Your task to perform on an android device: star an email in the gmail app Image 0: 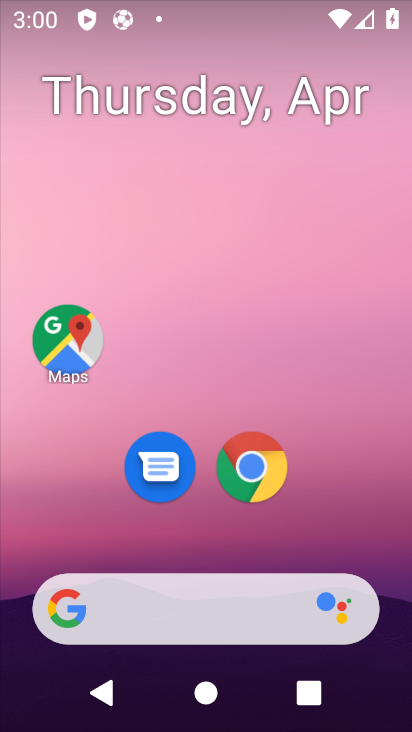
Step 0: drag from (345, 520) to (379, 113)
Your task to perform on an android device: star an email in the gmail app Image 1: 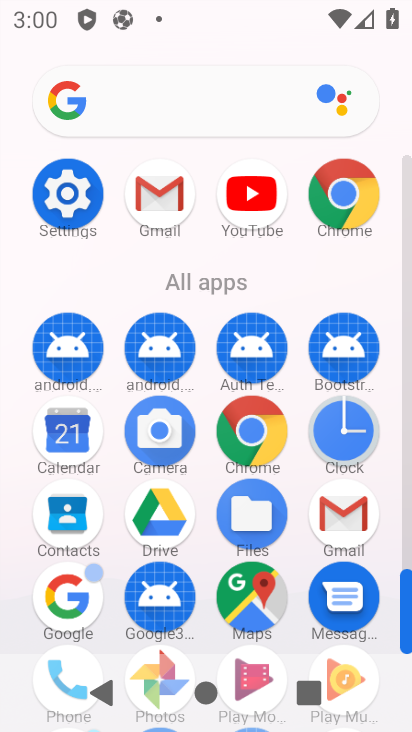
Step 1: click (159, 206)
Your task to perform on an android device: star an email in the gmail app Image 2: 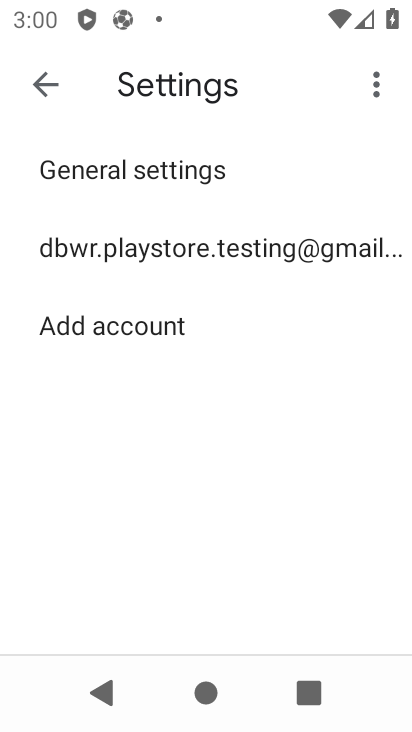
Step 2: click (43, 78)
Your task to perform on an android device: star an email in the gmail app Image 3: 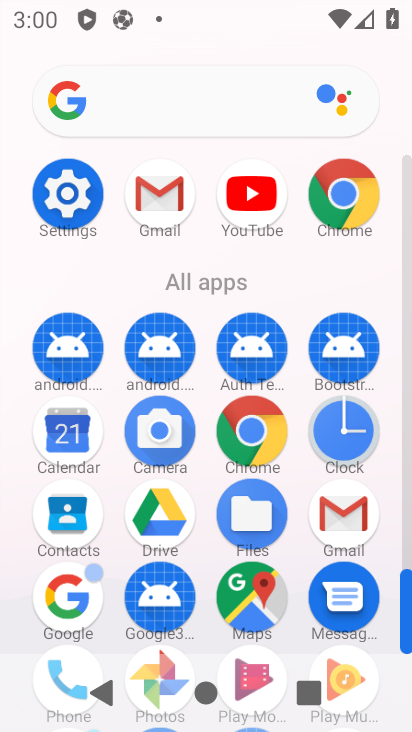
Step 3: click (150, 189)
Your task to perform on an android device: star an email in the gmail app Image 4: 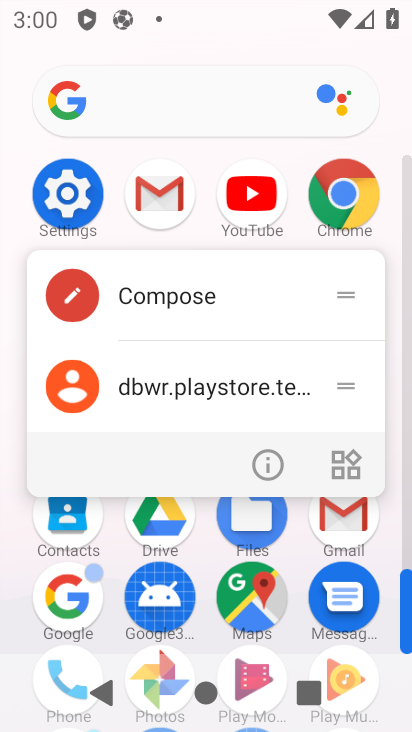
Step 4: click (150, 189)
Your task to perform on an android device: star an email in the gmail app Image 5: 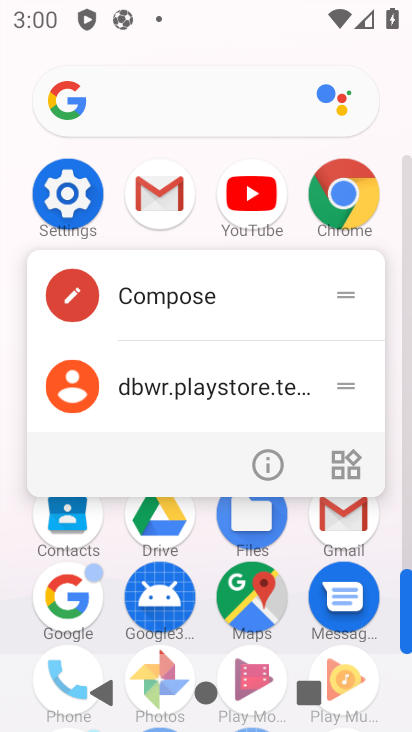
Step 5: click (150, 189)
Your task to perform on an android device: star an email in the gmail app Image 6: 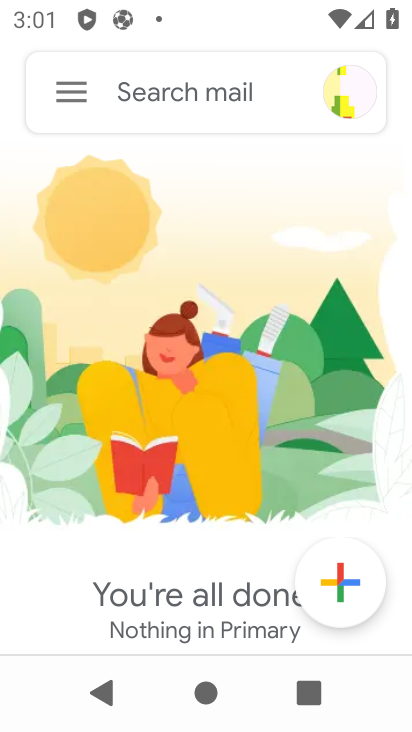
Step 6: click (65, 93)
Your task to perform on an android device: star an email in the gmail app Image 7: 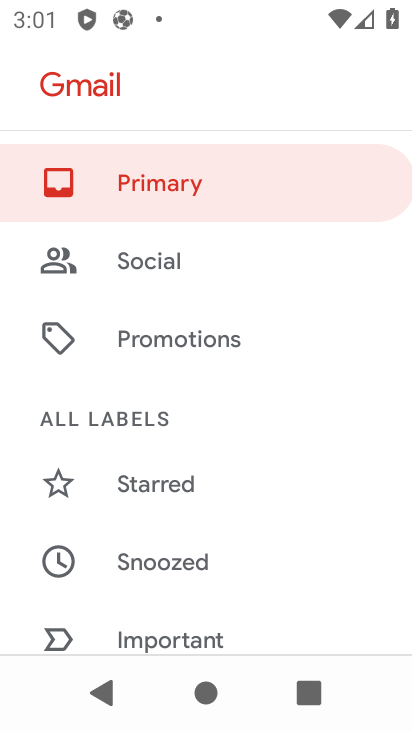
Step 7: drag from (243, 577) to (237, 192)
Your task to perform on an android device: star an email in the gmail app Image 8: 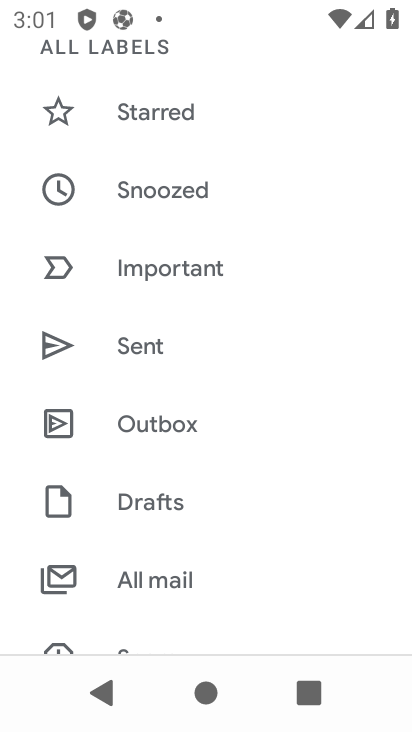
Step 8: click (225, 578)
Your task to perform on an android device: star an email in the gmail app Image 9: 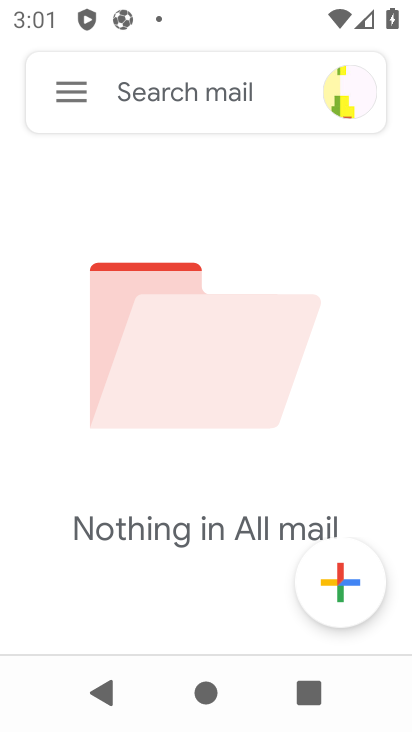
Step 9: task complete